Your task to perform on an android device: How big is the universe? Image 0: 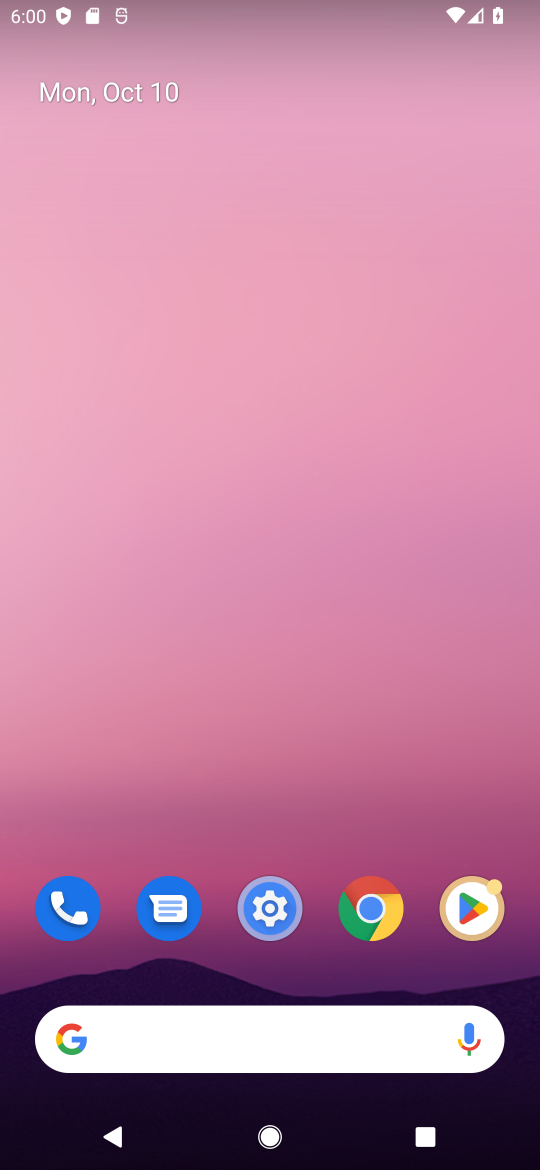
Step 0: drag from (319, 945) to (343, 3)
Your task to perform on an android device: How big is the universe? Image 1: 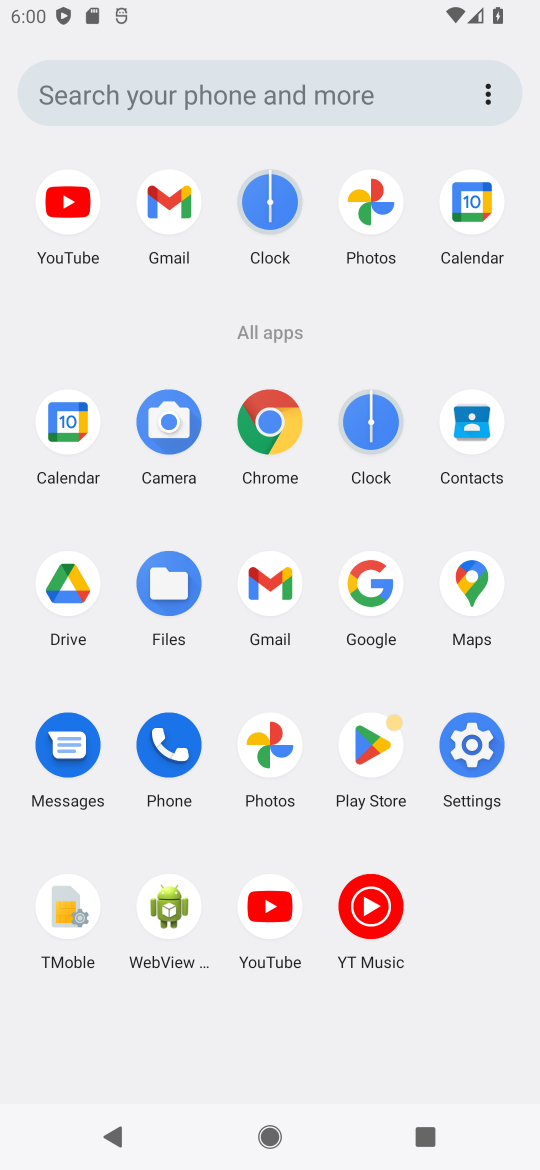
Step 1: click (267, 414)
Your task to perform on an android device: How big is the universe? Image 2: 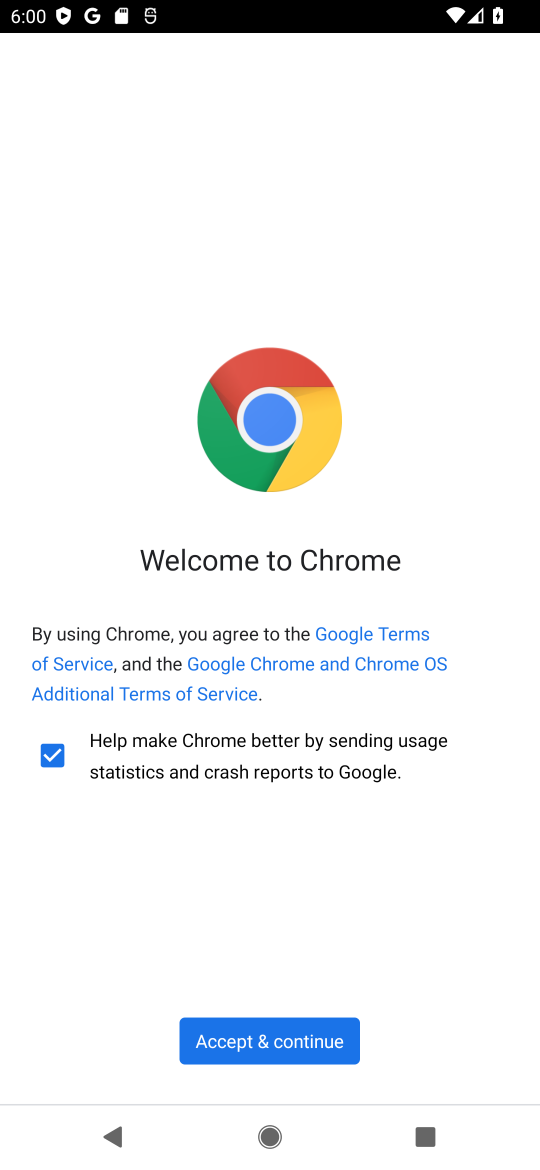
Step 2: click (256, 1043)
Your task to perform on an android device: How big is the universe? Image 3: 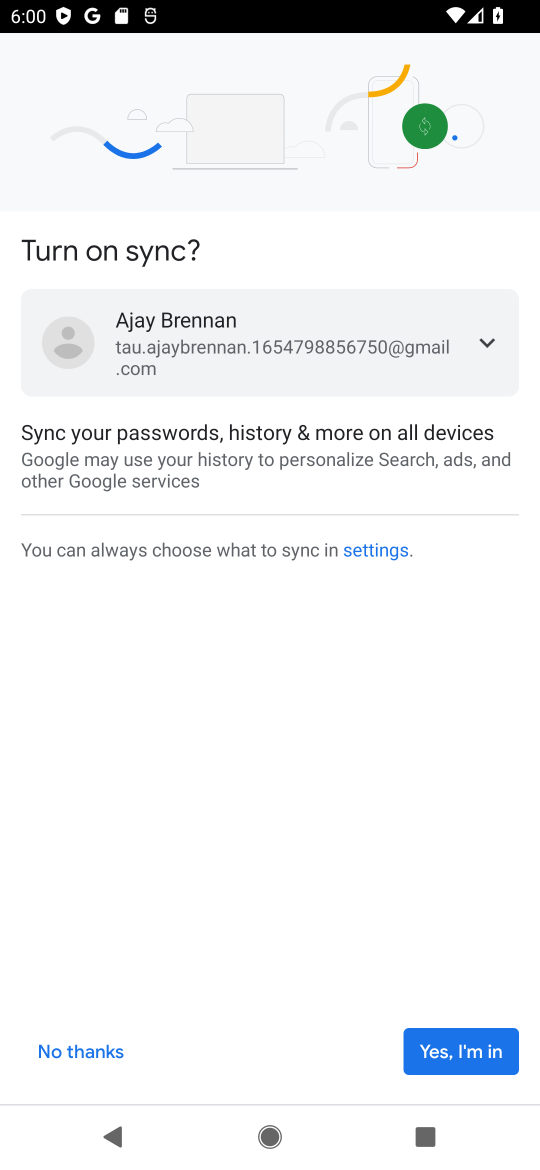
Step 3: click (432, 1045)
Your task to perform on an android device: How big is the universe? Image 4: 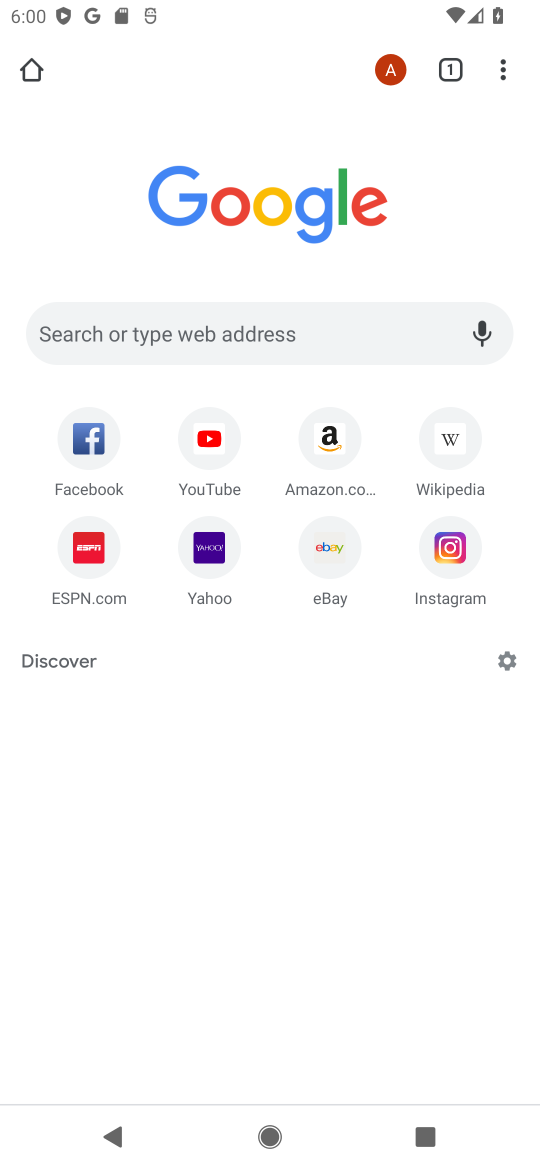
Step 4: click (286, 353)
Your task to perform on an android device: How big is the universe? Image 5: 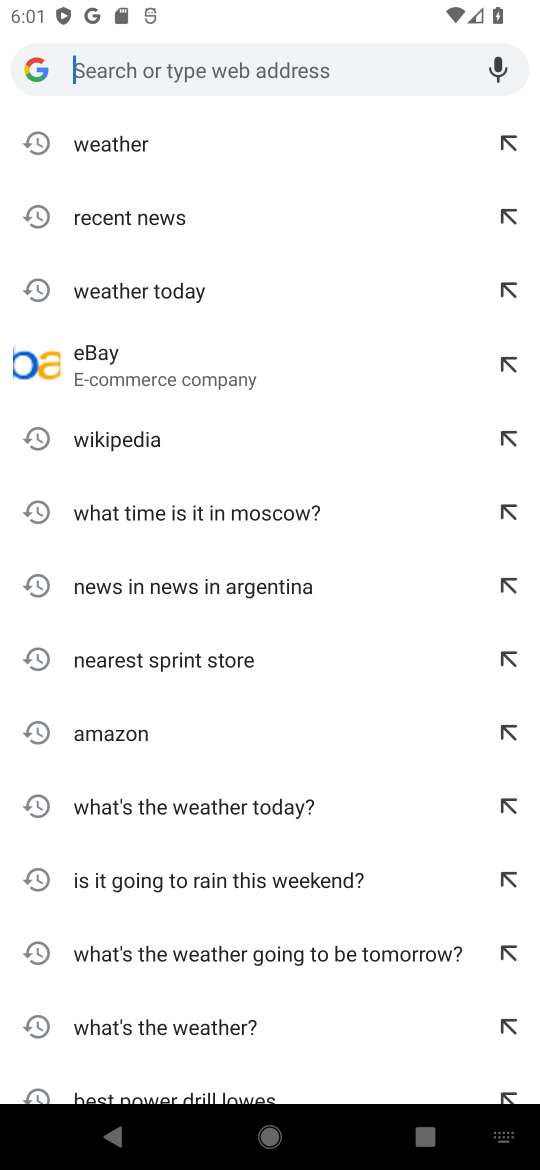
Step 5: type "How big is the universe ?"
Your task to perform on an android device: How big is the universe? Image 6: 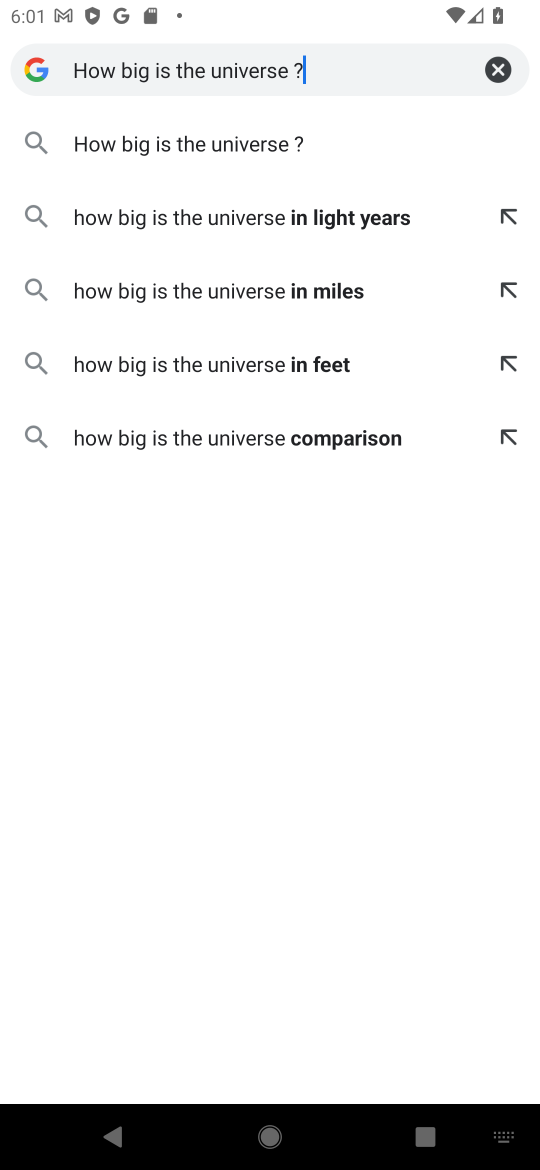
Step 6: press enter
Your task to perform on an android device: How big is the universe? Image 7: 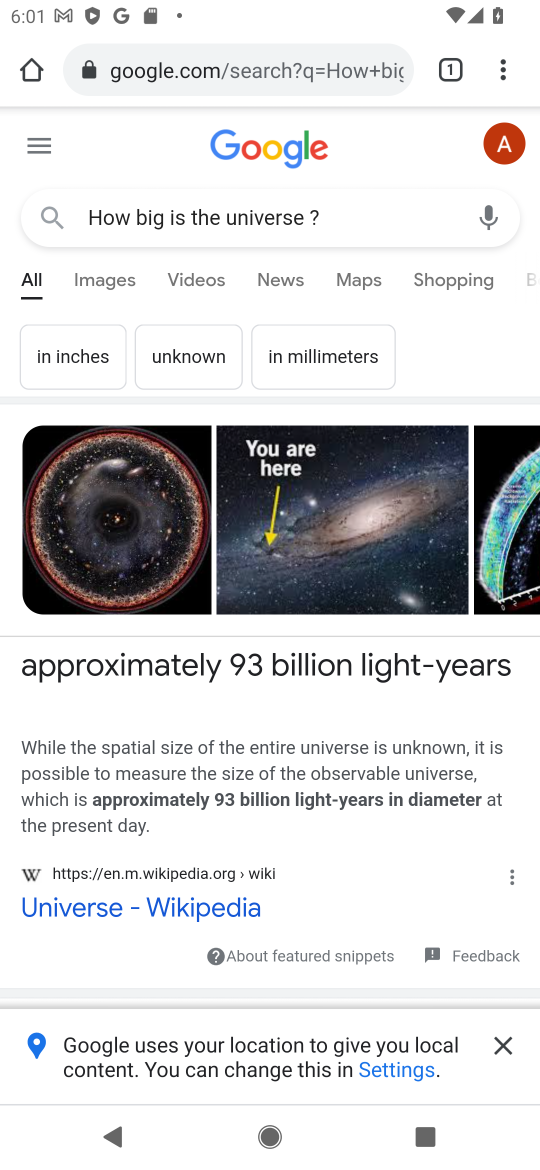
Step 7: task complete